Your task to perform on an android device: open a new tab in the chrome app Image 0: 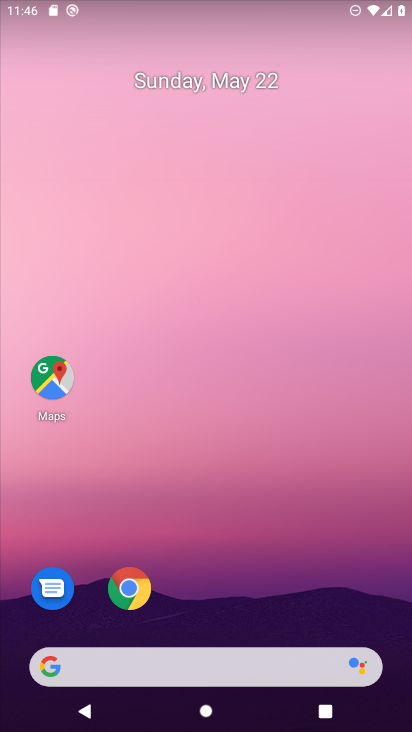
Step 0: click (127, 586)
Your task to perform on an android device: open a new tab in the chrome app Image 1: 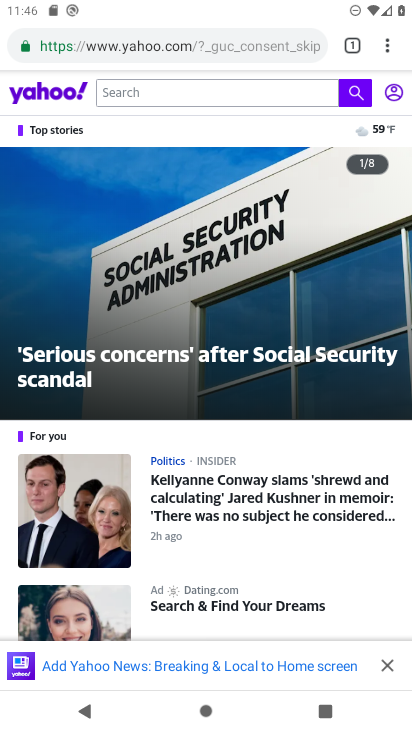
Step 1: click (388, 48)
Your task to perform on an android device: open a new tab in the chrome app Image 2: 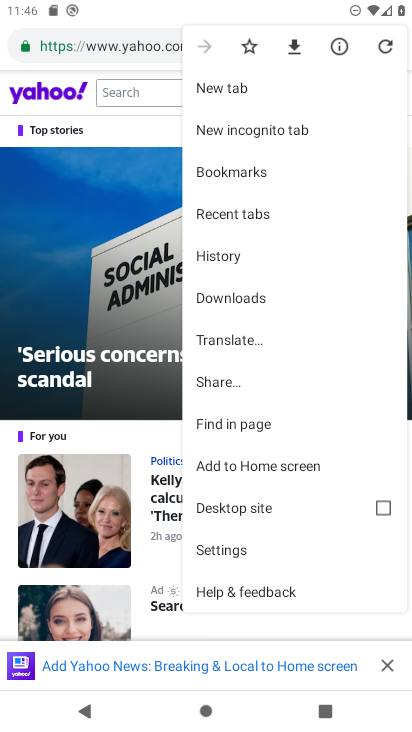
Step 2: click (276, 94)
Your task to perform on an android device: open a new tab in the chrome app Image 3: 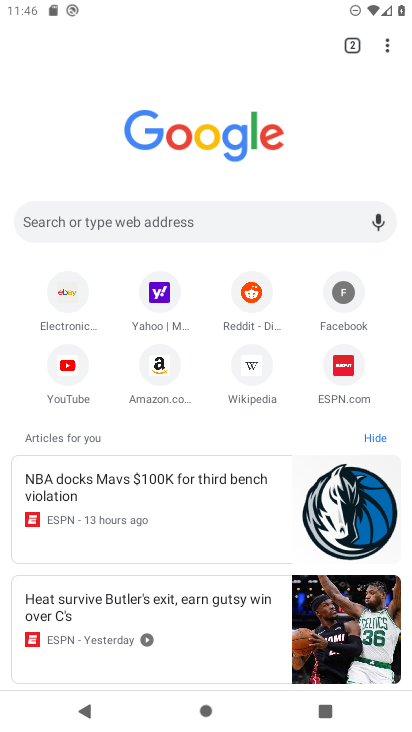
Step 3: task complete